Your task to perform on an android device: open sync settings in chrome Image 0: 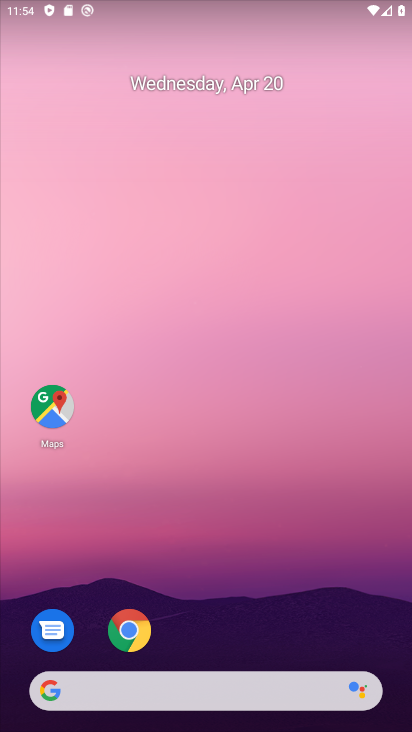
Step 0: drag from (236, 637) to (243, 232)
Your task to perform on an android device: open sync settings in chrome Image 1: 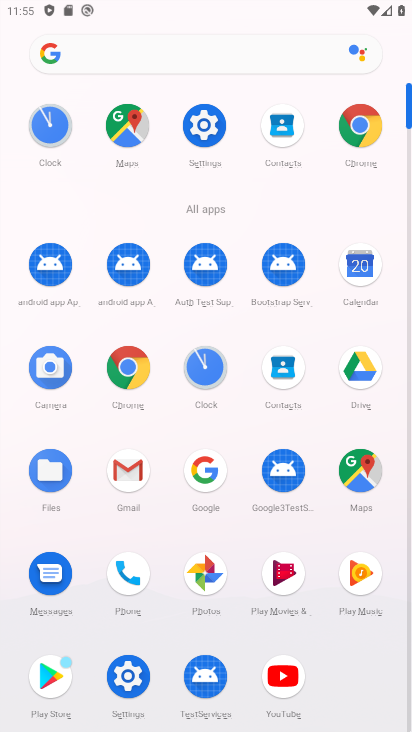
Step 1: click (369, 130)
Your task to perform on an android device: open sync settings in chrome Image 2: 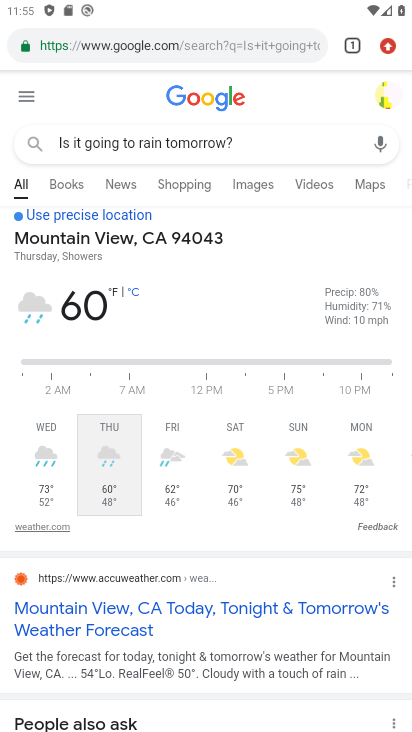
Step 2: click (387, 67)
Your task to perform on an android device: open sync settings in chrome Image 3: 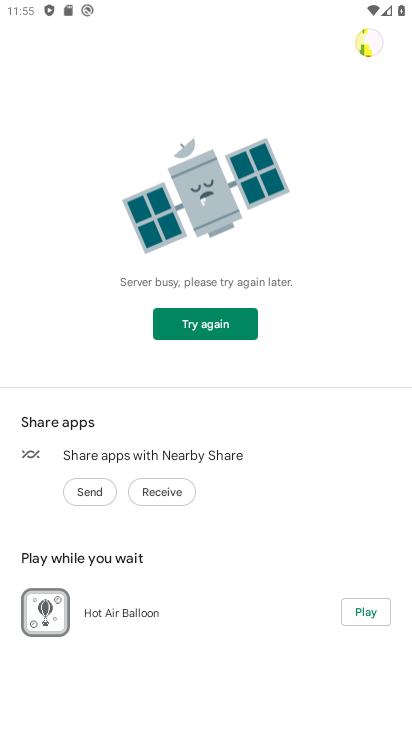
Step 3: task complete